Your task to perform on an android device: Is it going to rain tomorrow? Image 0: 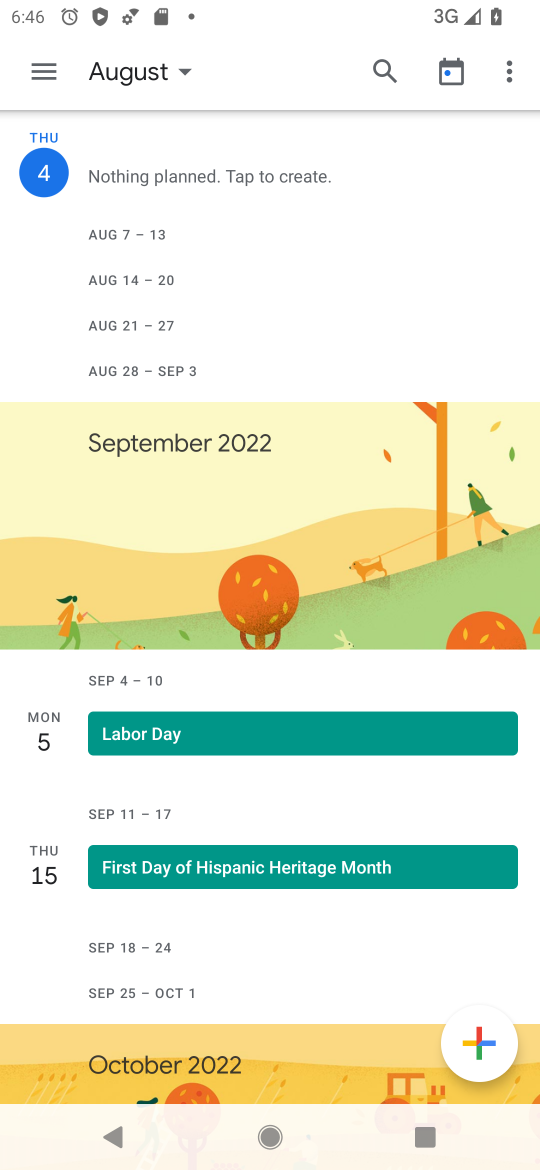
Step 0: press home button
Your task to perform on an android device: Is it going to rain tomorrow? Image 1: 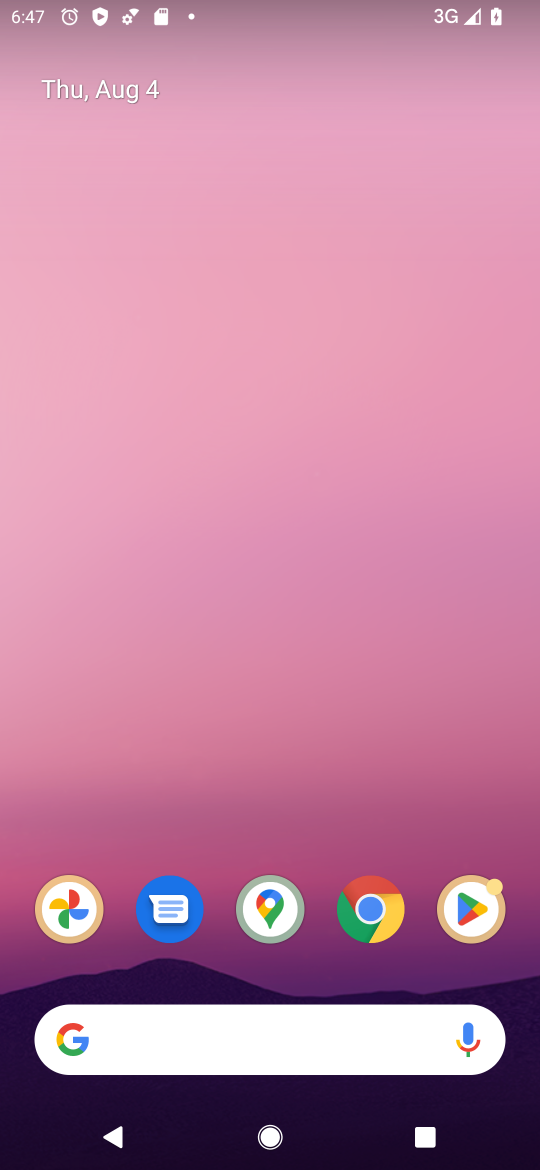
Step 1: drag from (270, 847) to (123, 78)
Your task to perform on an android device: Is it going to rain tomorrow? Image 2: 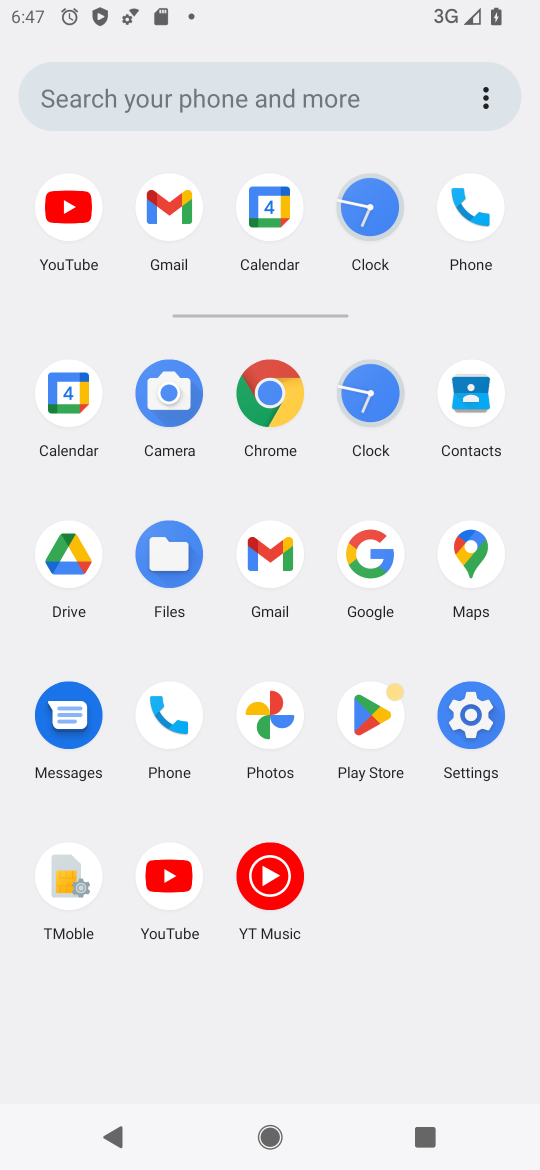
Step 2: click (87, 418)
Your task to perform on an android device: Is it going to rain tomorrow? Image 3: 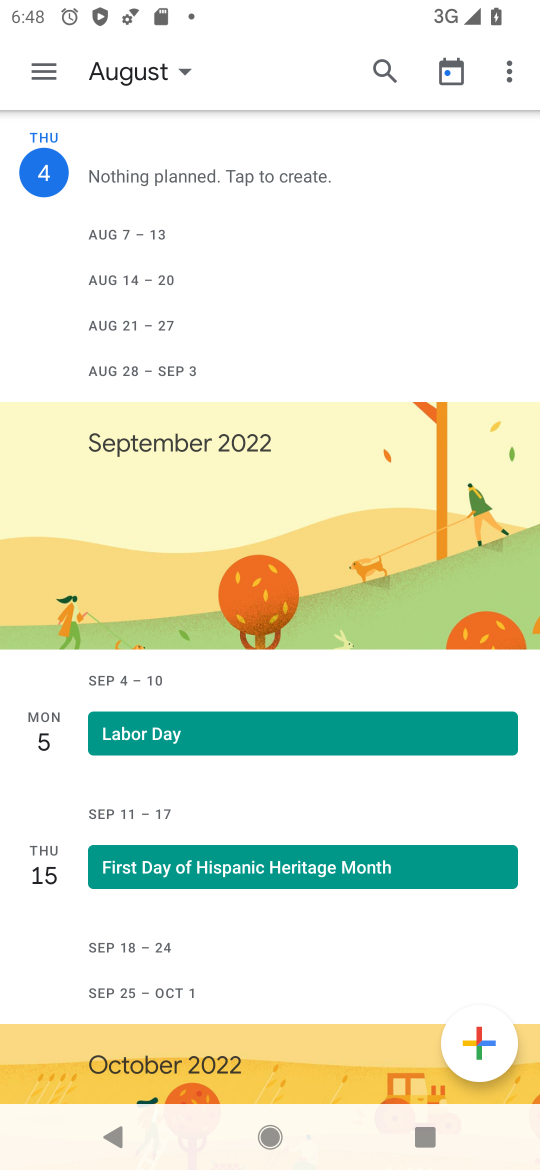
Step 3: task complete